Your task to perform on an android device: turn on showing notifications on the lock screen Image 0: 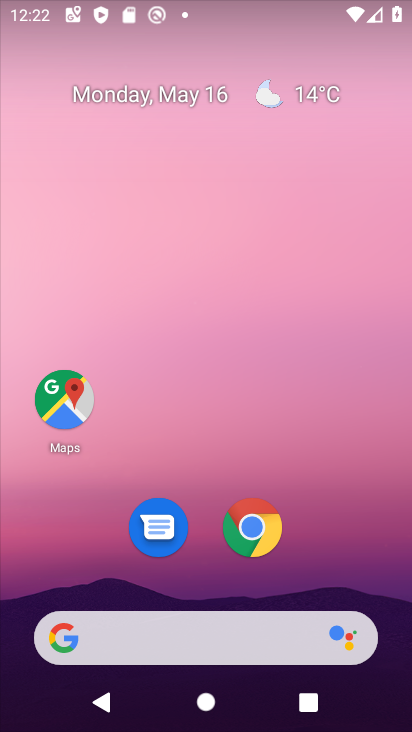
Step 0: drag from (194, 595) to (222, 48)
Your task to perform on an android device: turn on showing notifications on the lock screen Image 1: 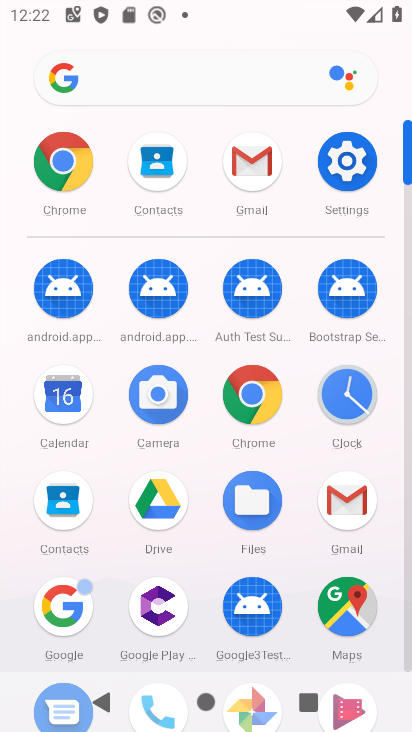
Step 1: click (345, 159)
Your task to perform on an android device: turn on showing notifications on the lock screen Image 2: 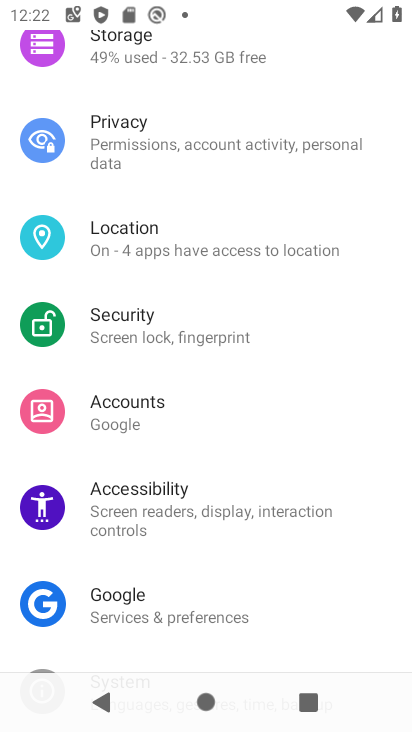
Step 2: drag from (180, 201) to (143, 599)
Your task to perform on an android device: turn on showing notifications on the lock screen Image 3: 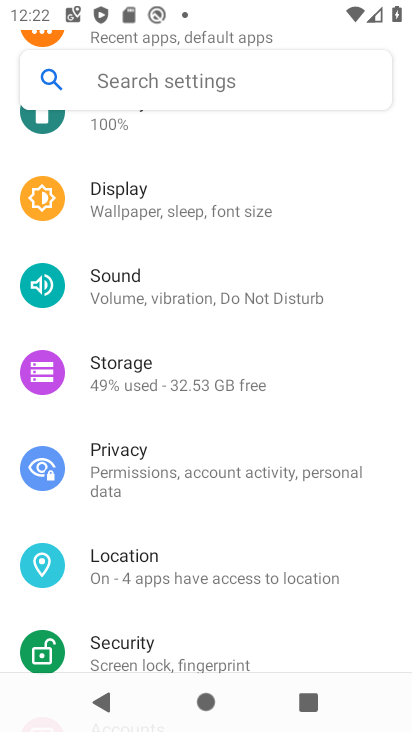
Step 3: drag from (224, 243) to (221, 537)
Your task to perform on an android device: turn on showing notifications on the lock screen Image 4: 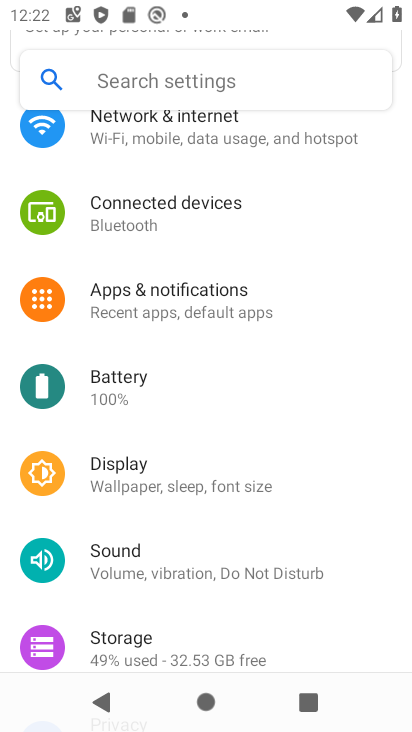
Step 4: click (192, 297)
Your task to perform on an android device: turn on showing notifications on the lock screen Image 5: 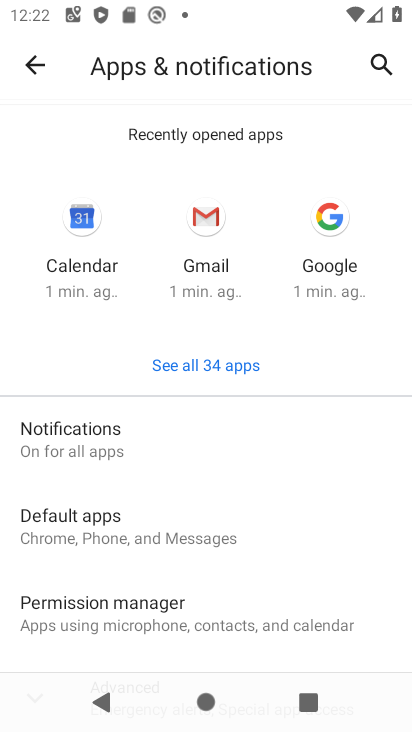
Step 5: click (102, 427)
Your task to perform on an android device: turn on showing notifications on the lock screen Image 6: 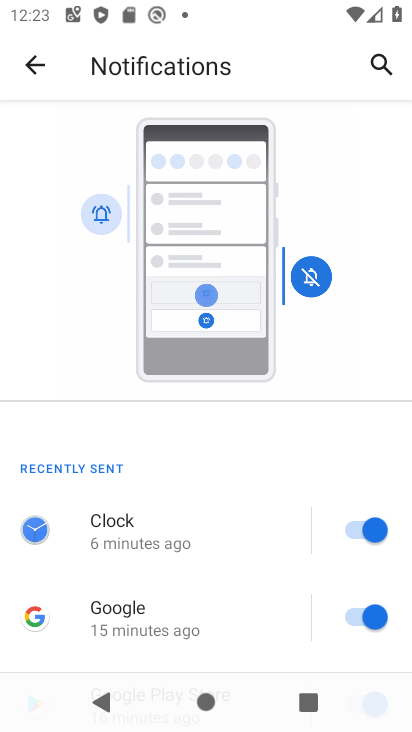
Step 6: drag from (181, 600) to (233, 359)
Your task to perform on an android device: turn on showing notifications on the lock screen Image 7: 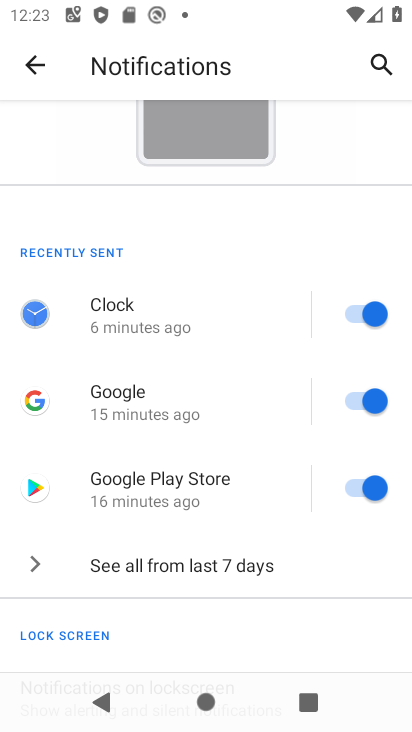
Step 7: drag from (185, 558) to (280, 263)
Your task to perform on an android device: turn on showing notifications on the lock screen Image 8: 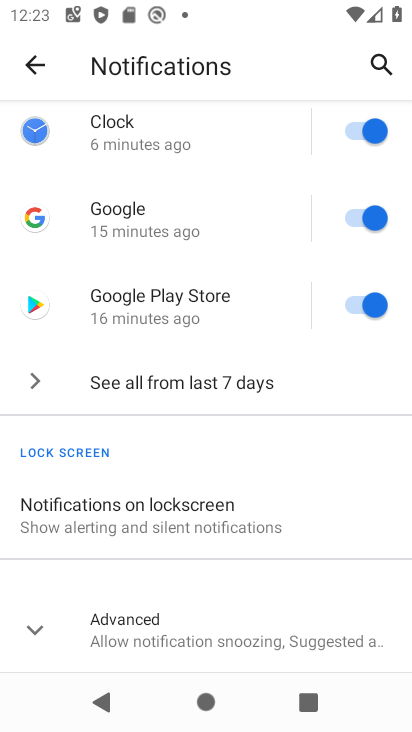
Step 8: click (167, 527)
Your task to perform on an android device: turn on showing notifications on the lock screen Image 9: 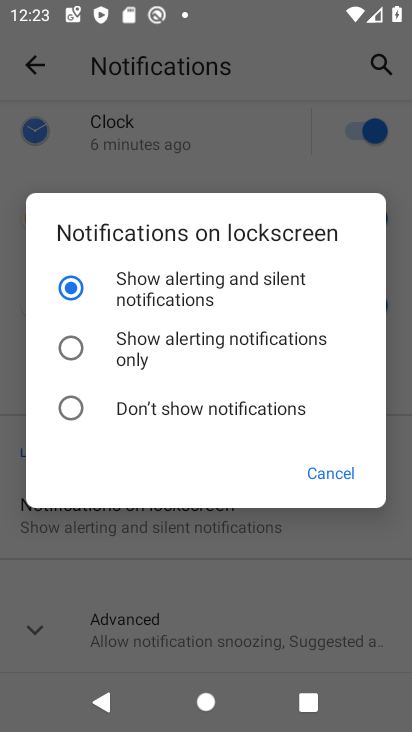
Step 9: task complete